Your task to perform on an android device: Search for seafood restaurants on Google Maps Image 0: 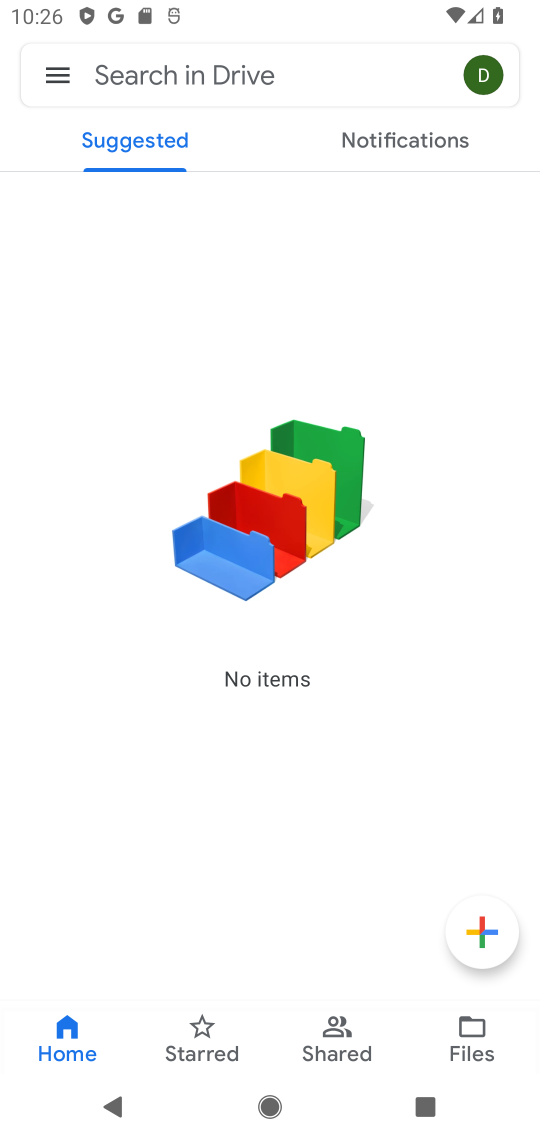
Step 0: press home button
Your task to perform on an android device: Search for seafood restaurants on Google Maps Image 1: 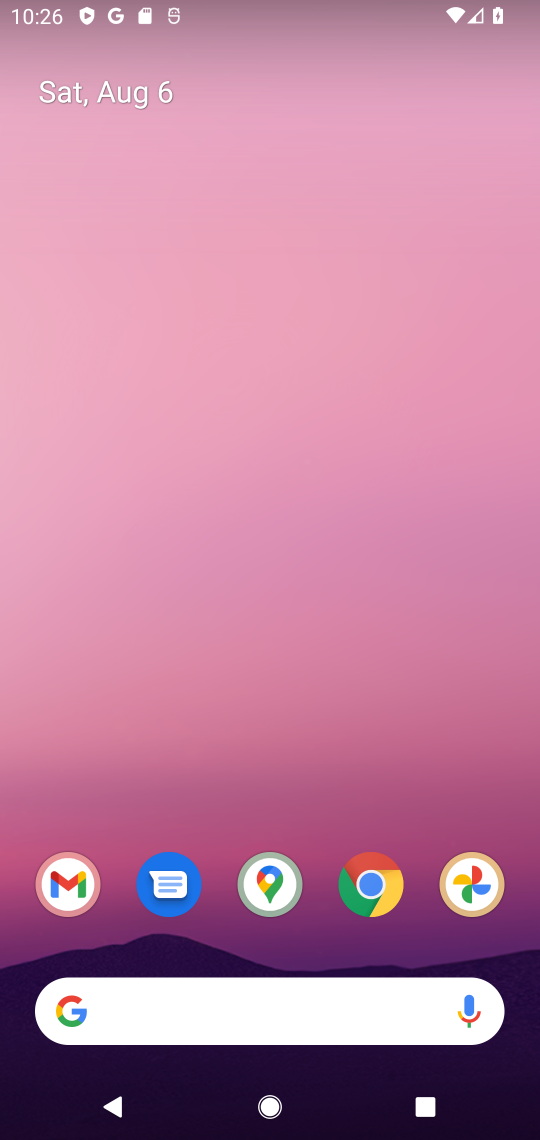
Step 1: click (266, 881)
Your task to perform on an android device: Search for seafood restaurants on Google Maps Image 2: 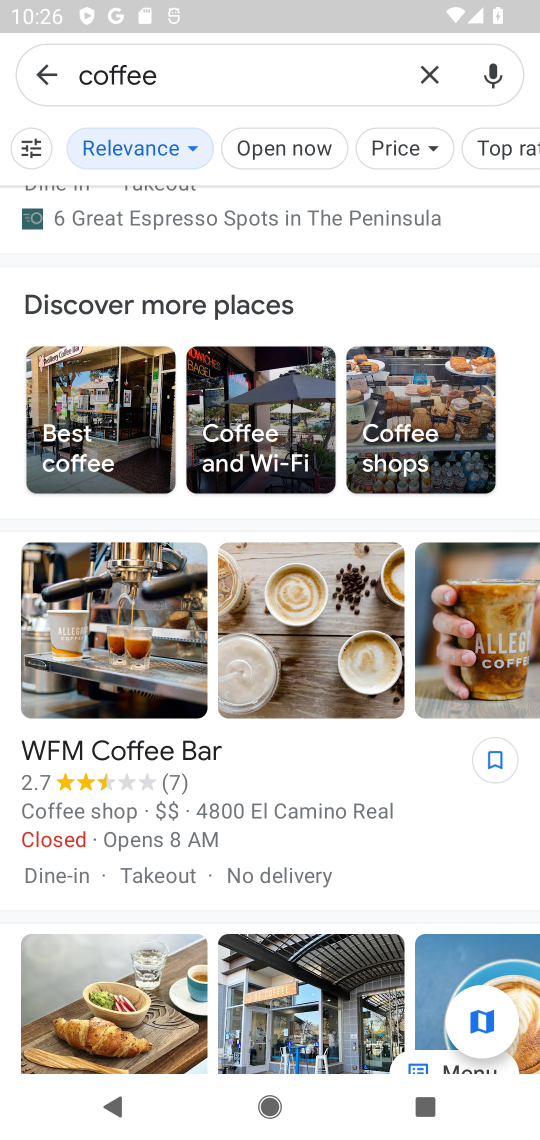
Step 2: click (428, 65)
Your task to perform on an android device: Search for seafood restaurants on Google Maps Image 3: 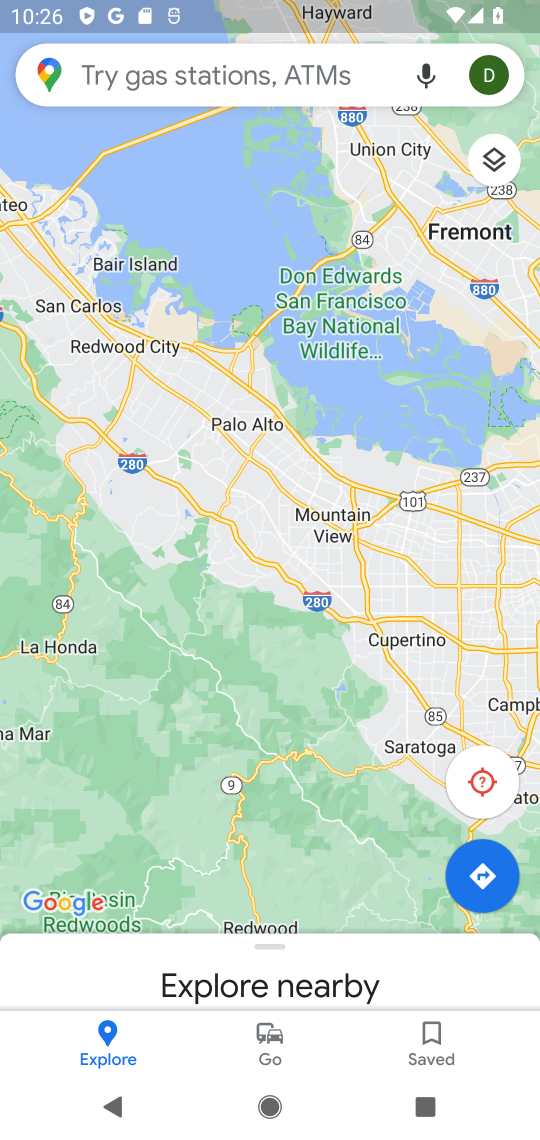
Step 3: click (226, 76)
Your task to perform on an android device: Search for seafood restaurants on Google Maps Image 4: 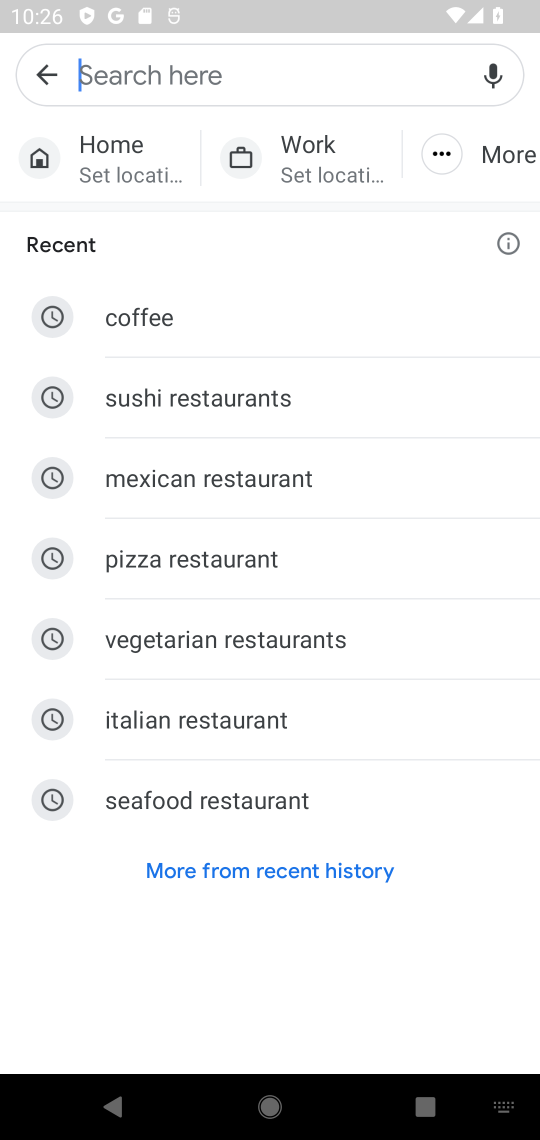
Step 4: type "seafood restaurants"
Your task to perform on an android device: Search for seafood restaurants on Google Maps Image 5: 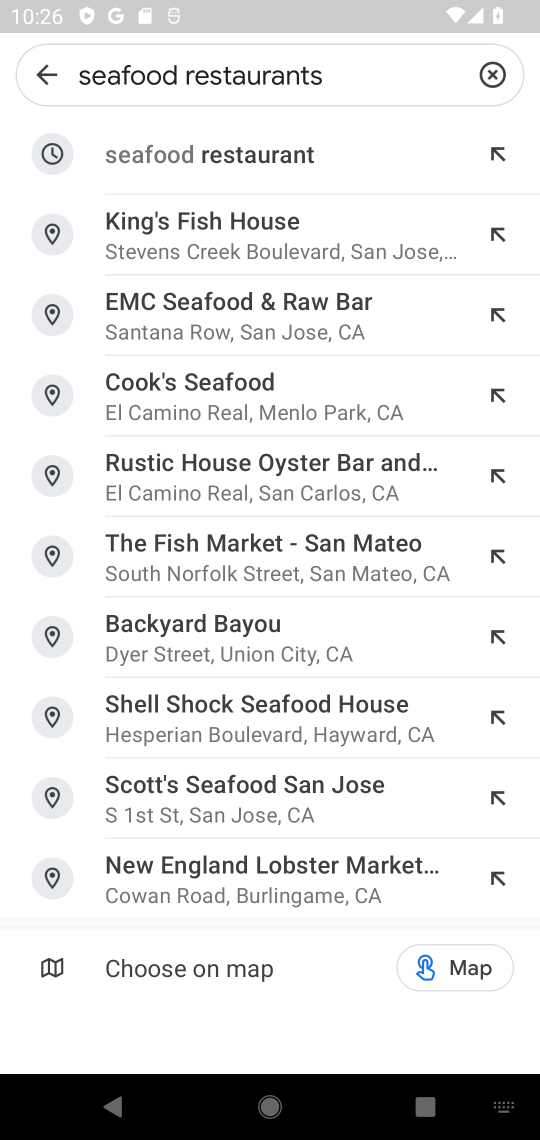
Step 5: click (178, 138)
Your task to perform on an android device: Search for seafood restaurants on Google Maps Image 6: 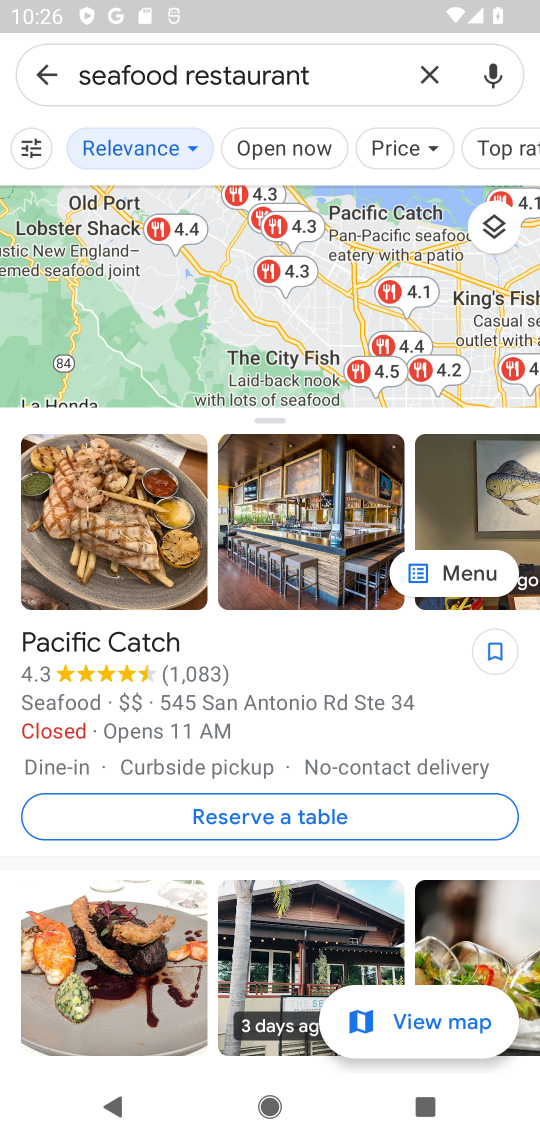
Step 6: task complete